Your task to perform on an android device: Open the calendar app, open the side menu, and click the "Day" option Image 0: 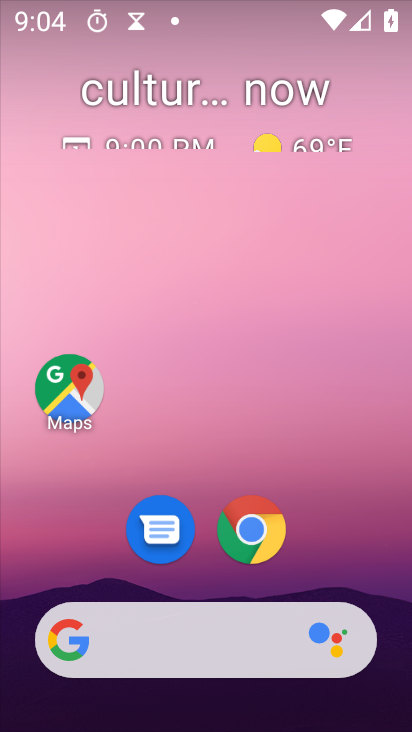
Step 0: drag from (314, 491) to (303, 106)
Your task to perform on an android device: Open the calendar app, open the side menu, and click the "Day" option Image 1: 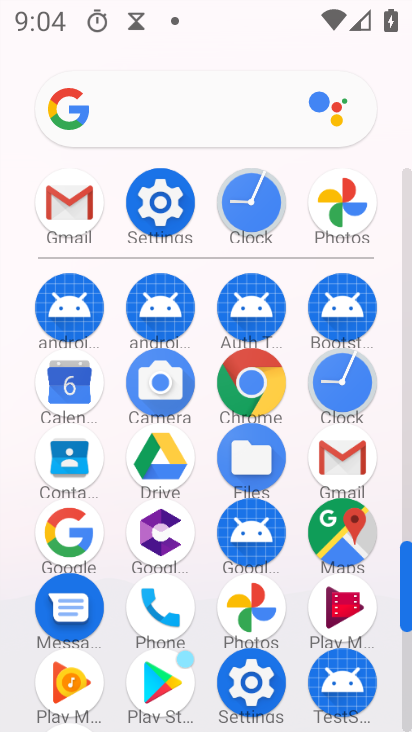
Step 1: click (64, 389)
Your task to perform on an android device: Open the calendar app, open the side menu, and click the "Day" option Image 2: 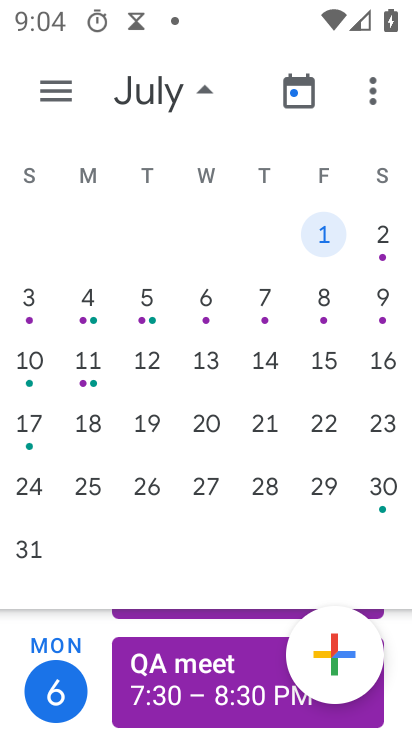
Step 2: click (51, 88)
Your task to perform on an android device: Open the calendar app, open the side menu, and click the "Day" option Image 3: 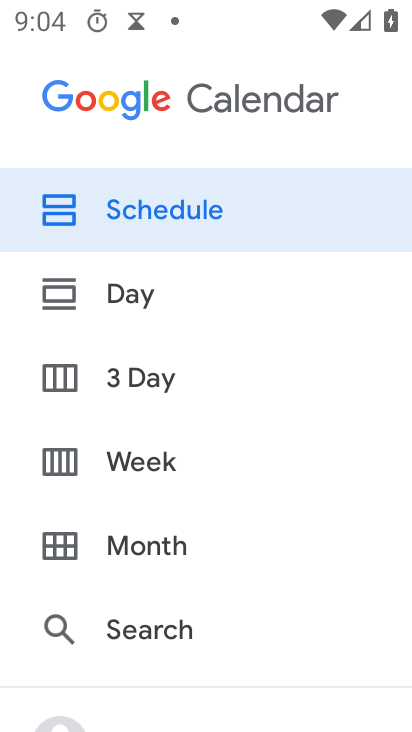
Step 3: click (118, 299)
Your task to perform on an android device: Open the calendar app, open the side menu, and click the "Day" option Image 4: 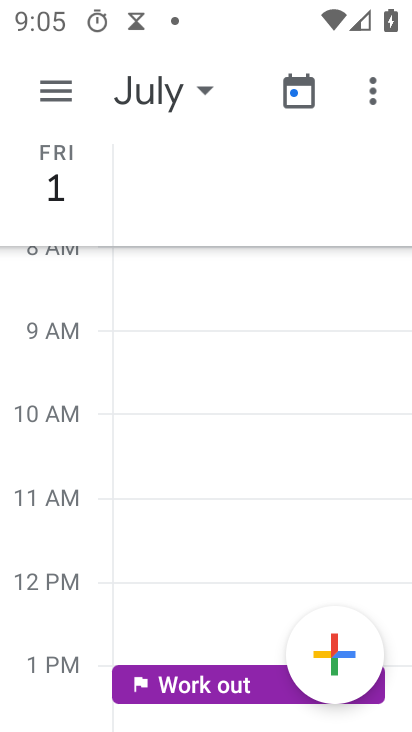
Step 4: click (55, 95)
Your task to perform on an android device: Open the calendar app, open the side menu, and click the "Day" option Image 5: 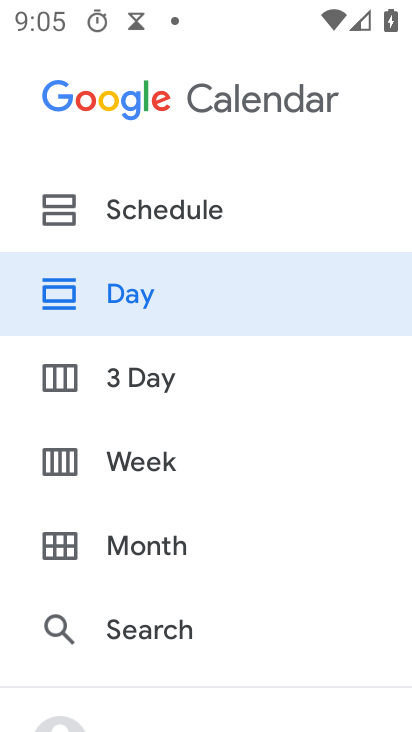
Step 5: click (146, 290)
Your task to perform on an android device: Open the calendar app, open the side menu, and click the "Day" option Image 6: 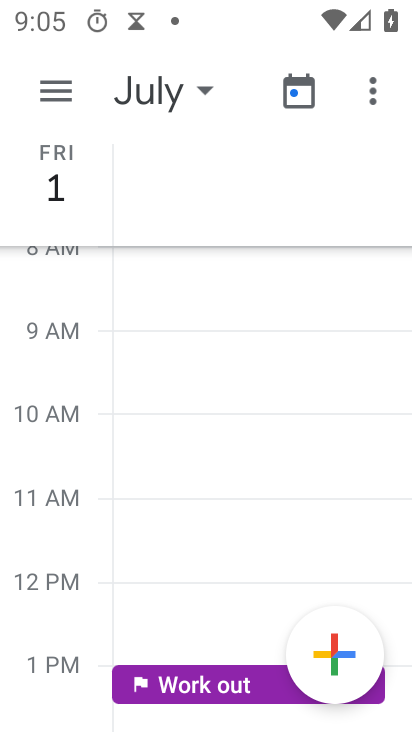
Step 6: task complete